Your task to perform on an android device: clear all cookies in the chrome app Image 0: 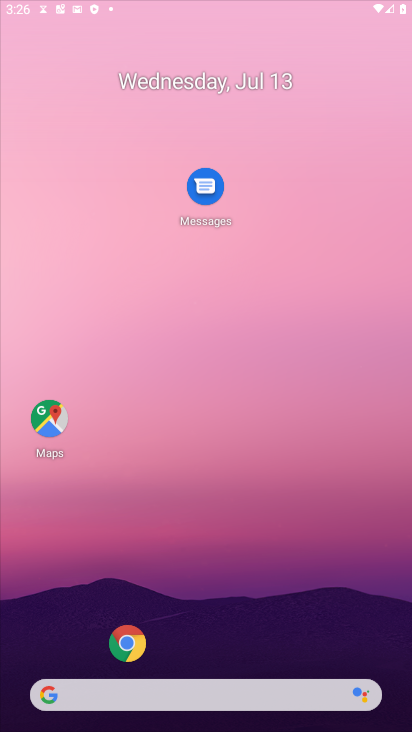
Step 0: drag from (28, 721) to (140, 269)
Your task to perform on an android device: clear all cookies in the chrome app Image 1: 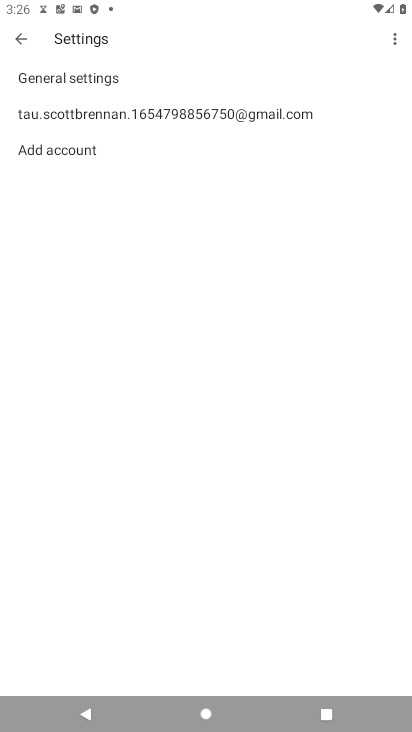
Step 1: click (19, 33)
Your task to perform on an android device: clear all cookies in the chrome app Image 2: 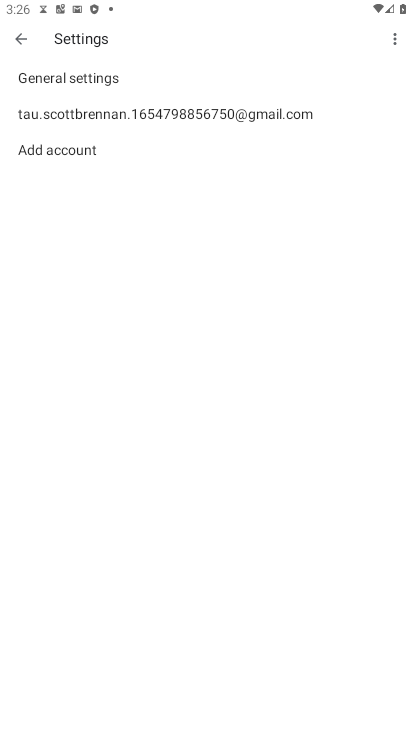
Step 2: press home button
Your task to perform on an android device: clear all cookies in the chrome app Image 3: 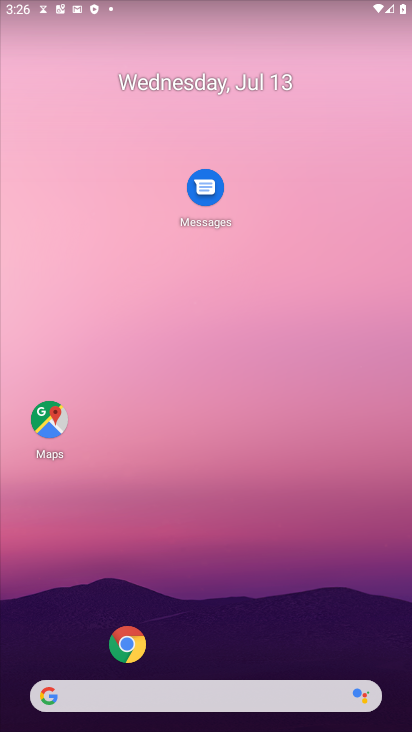
Step 3: click (132, 650)
Your task to perform on an android device: clear all cookies in the chrome app Image 4: 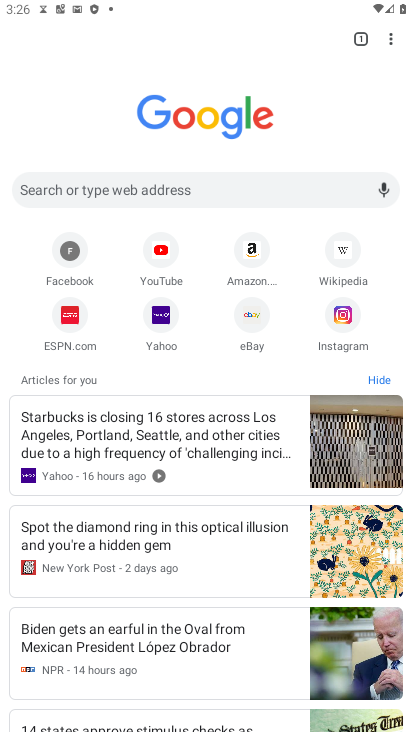
Step 4: click (384, 39)
Your task to perform on an android device: clear all cookies in the chrome app Image 5: 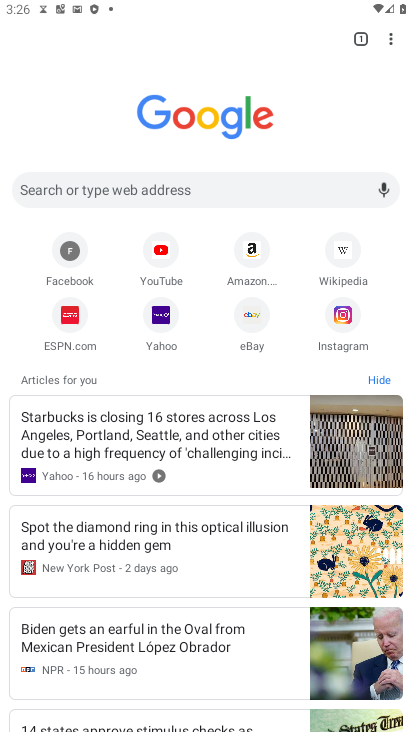
Step 5: click (388, 39)
Your task to perform on an android device: clear all cookies in the chrome app Image 6: 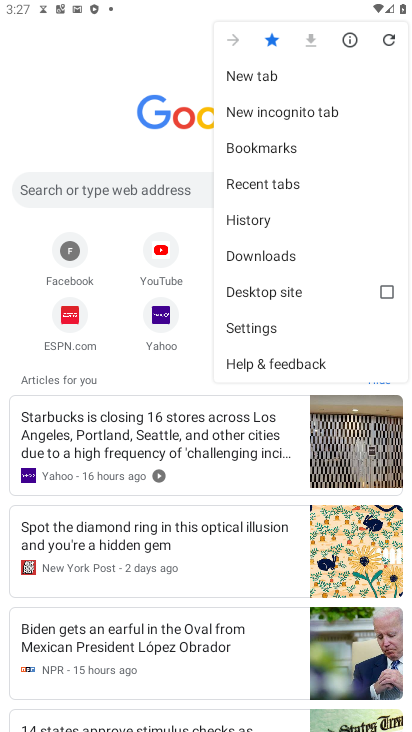
Step 6: click (252, 216)
Your task to perform on an android device: clear all cookies in the chrome app Image 7: 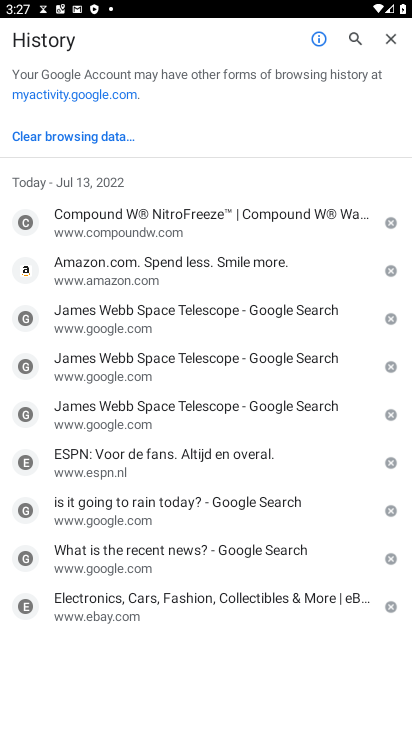
Step 7: click (53, 138)
Your task to perform on an android device: clear all cookies in the chrome app Image 8: 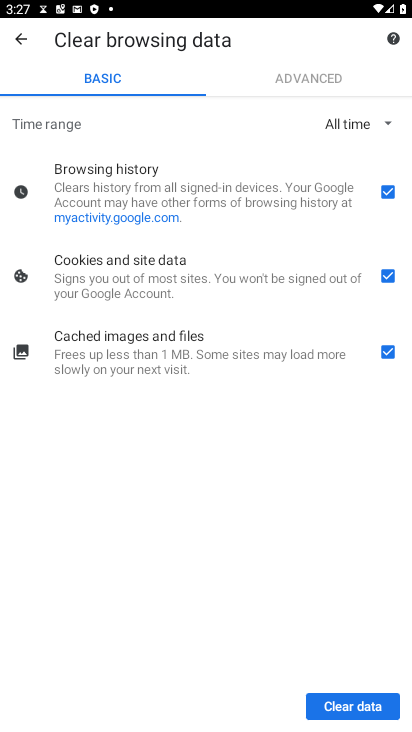
Step 8: click (382, 193)
Your task to perform on an android device: clear all cookies in the chrome app Image 9: 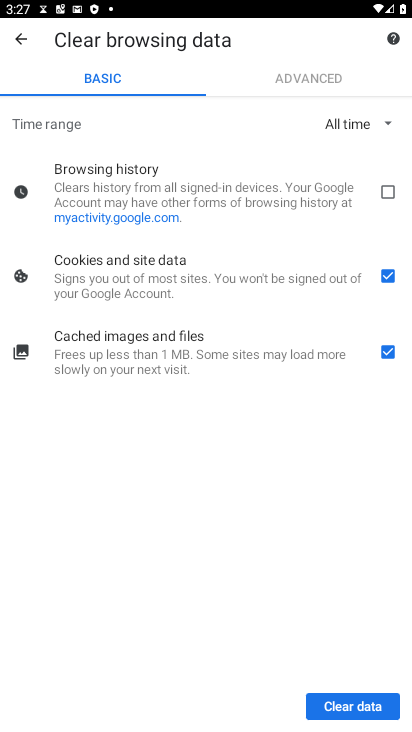
Step 9: click (395, 349)
Your task to perform on an android device: clear all cookies in the chrome app Image 10: 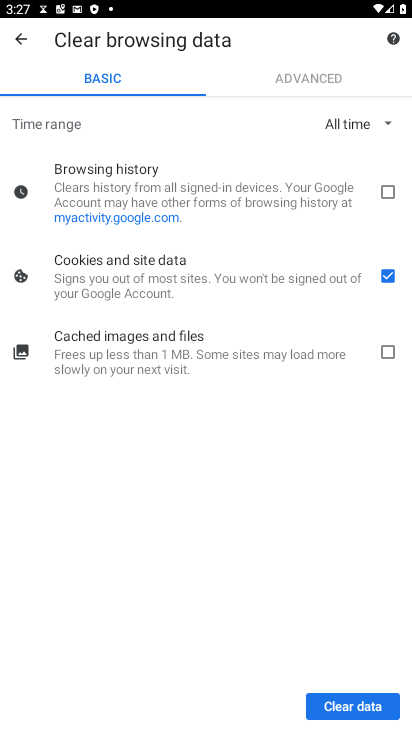
Step 10: click (360, 698)
Your task to perform on an android device: clear all cookies in the chrome app Image 11: 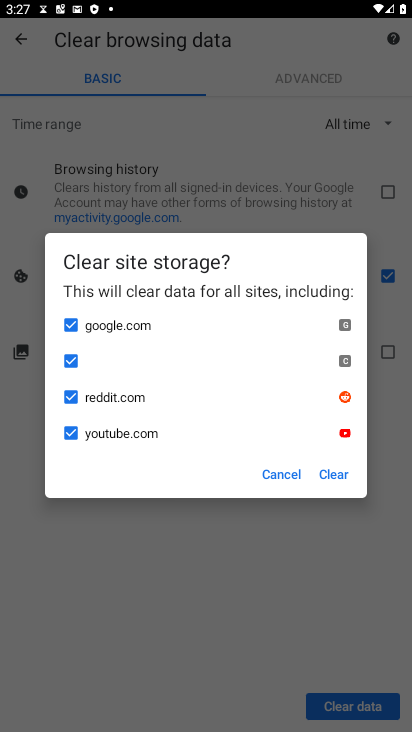
Step 11: click (327, 478)
Your task to perform on an android device: clear all cookies in the chrome app Image 12: 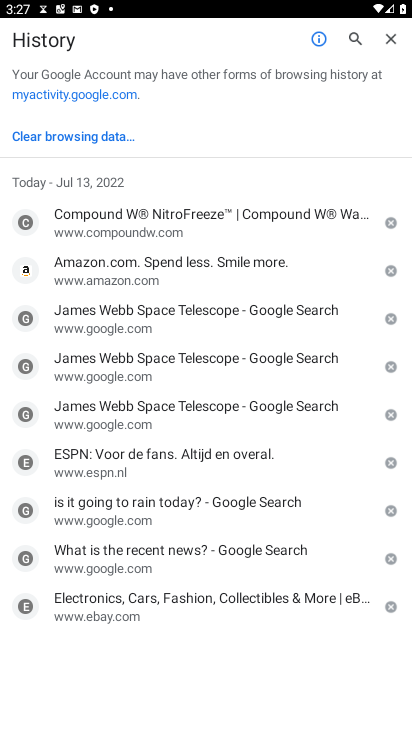
Step 12: task complete